Your task to perform on an android device: Go to Yahoo.com Image 0: 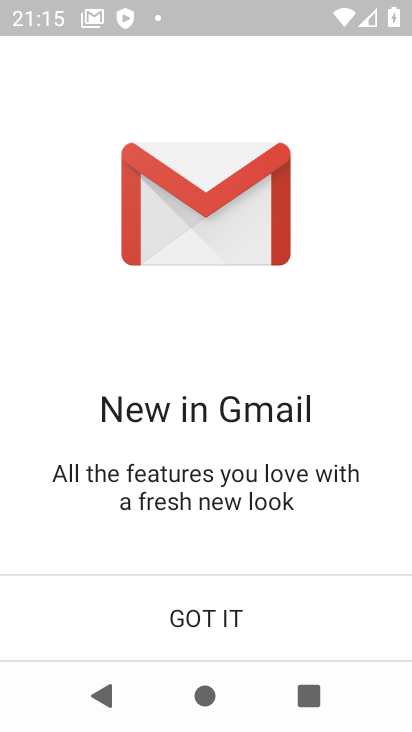
Step 0: press home button
Your task to perform on an android device: Go to Yahoo.com Image 1: 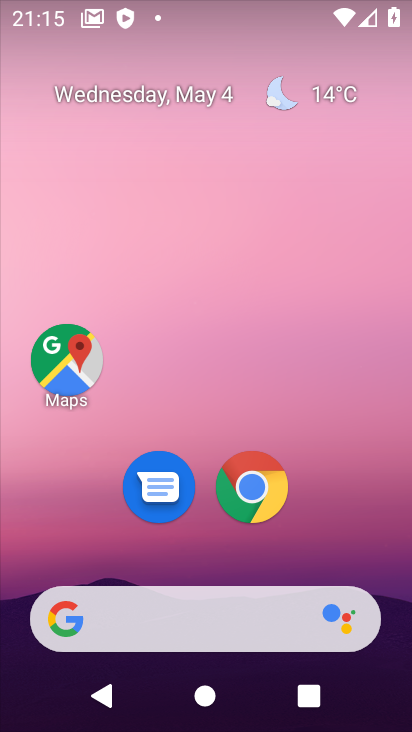
Step 1: click (248, 488)
Your task to perform on an android device: Go to Yahoo.com Image 2: 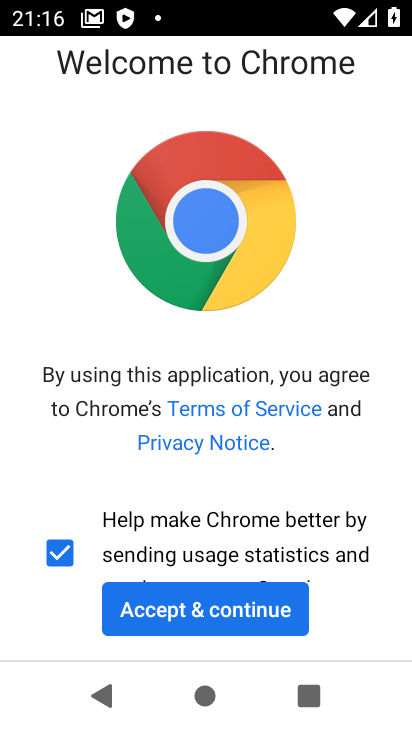
Step 2: click (218, 598)
Your task to perform on an android device: Go to Yahoo.com Image 3: 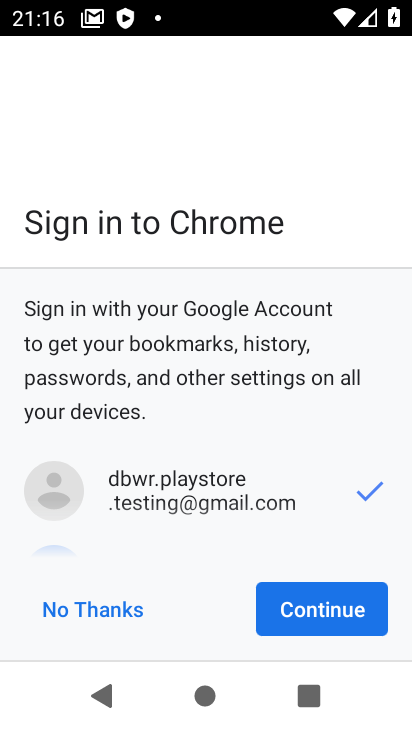
Step 3: click (60, 620)
Your task to perform on an android device: Go to Yahoo.com Image 4: 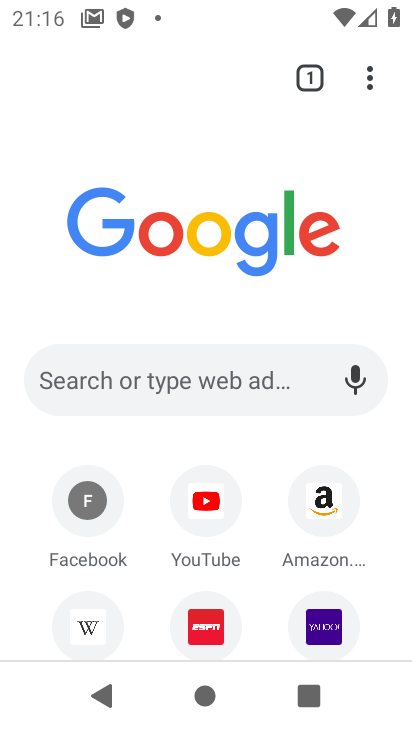
Step 4: click (345, 618)
Your task to perform on an android device: Go to Yahoo.com Image 5: 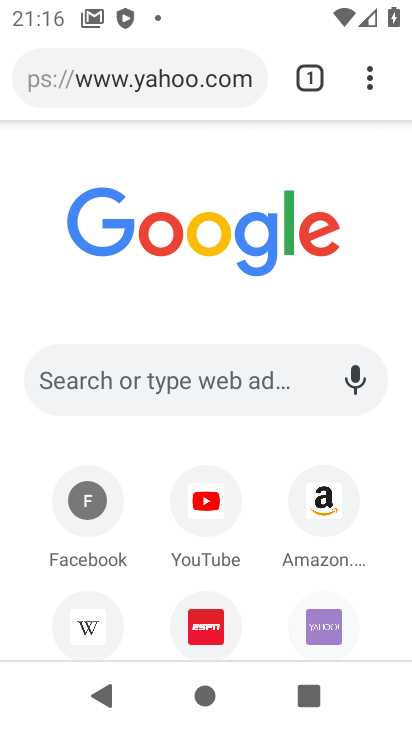
Step 5: click (345, 618)
Your task to perform on an android device: Go to Yahoo.com Image 6: 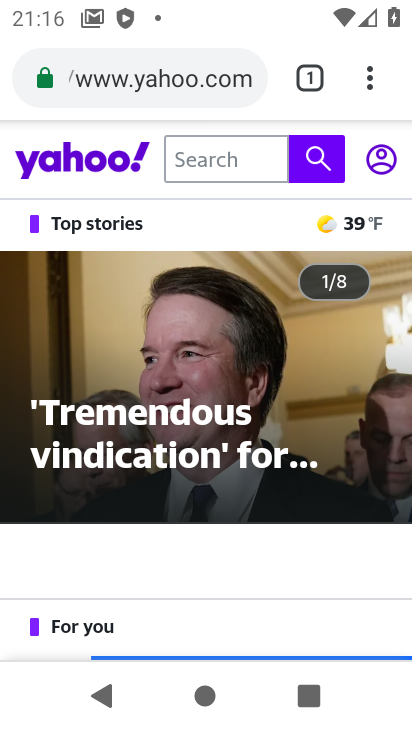
Step 6: task complete